Your task to perform on an android device: Open calendar and show me the first week of next month Image 0: 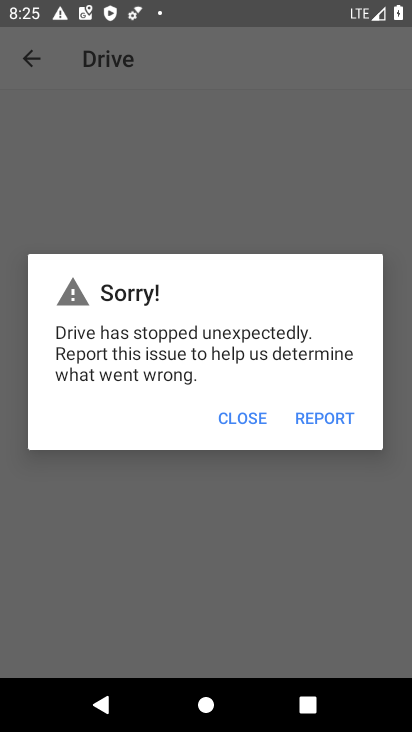
Step 0: press home button
Your task to perform on an android device: Open calendar and show me the first week of next month Image 1: 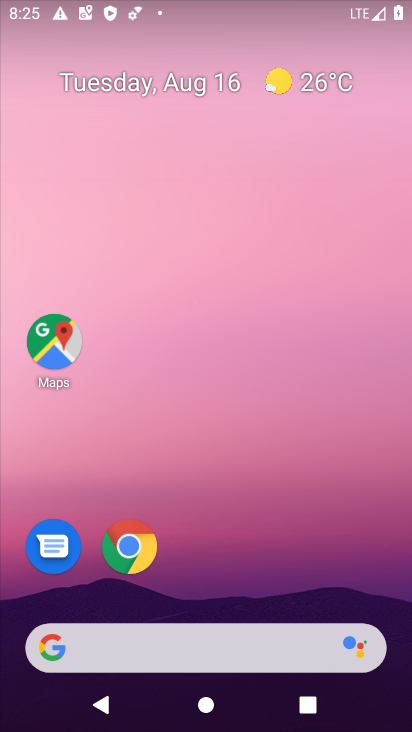
Step 1: drag from (258, 557) to (299, 0)
Your task to perform on an android device: Open calendar and show me the first week of next month Image 2: 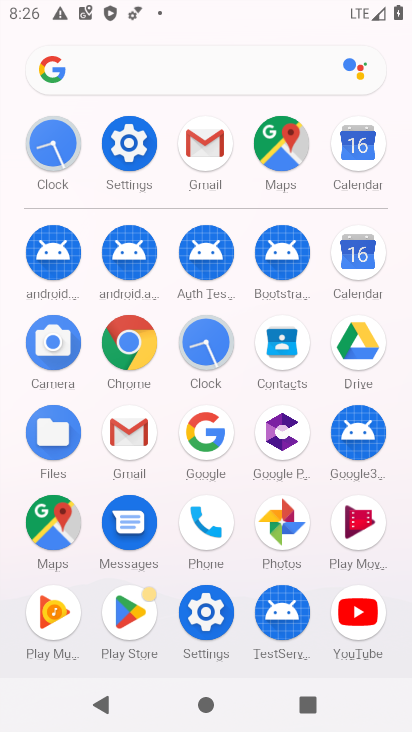
Step 2: click (364, 143)
Your task to perform on an android device: Open calendar and show me the first week of next month Image 3: 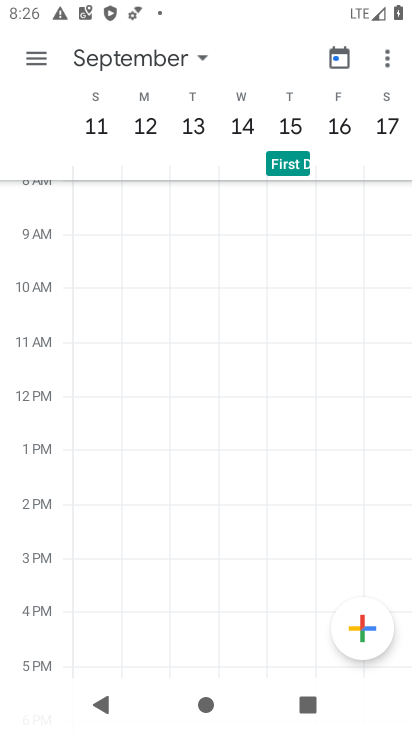
Step 3: task complete